Your task to perform on an android device: Open ESPN.com Image 0: 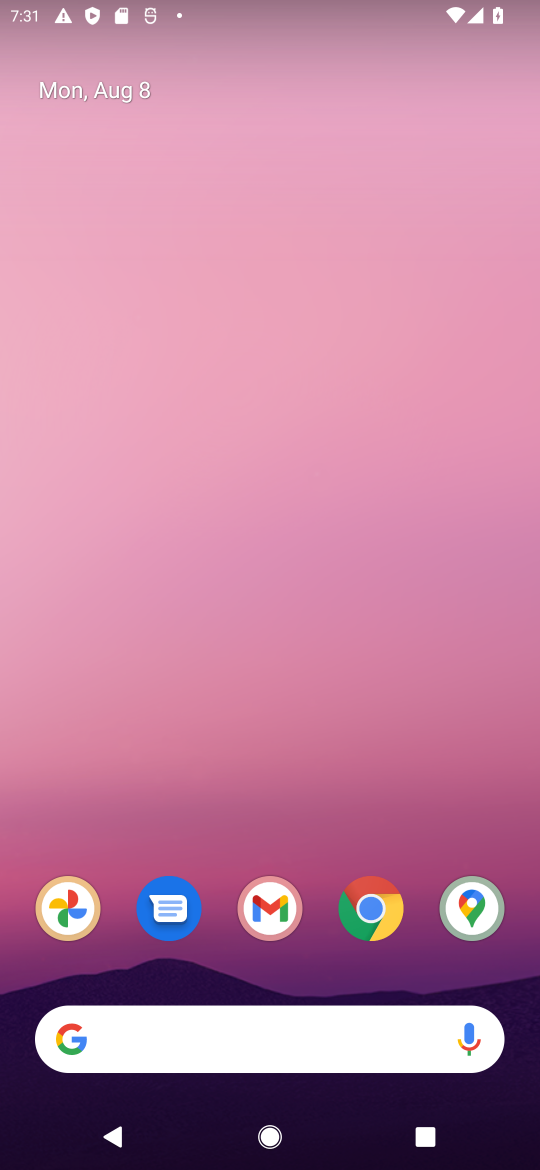
Step 0: click (374, 892)
Your task to perform on an android device: Open ESPN.com Image 1: 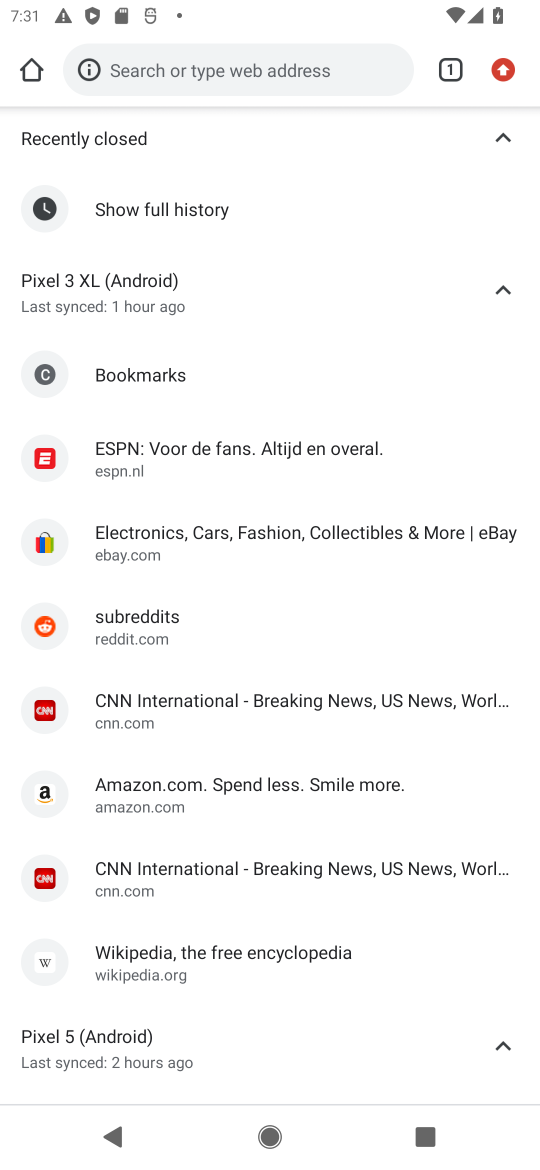
Step 1: click (31, 73)
Your task to perform on an android device: Open ESPN.com Image 2: 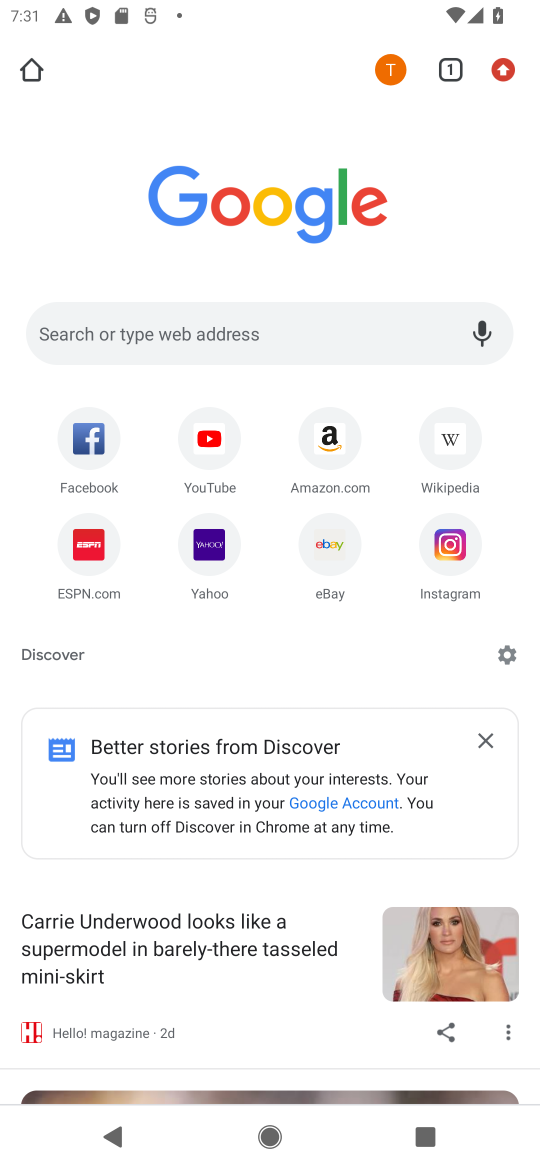
Step 2: click (75, 531)
Your task to perform on an android device: Open ESPN.com Image 3: 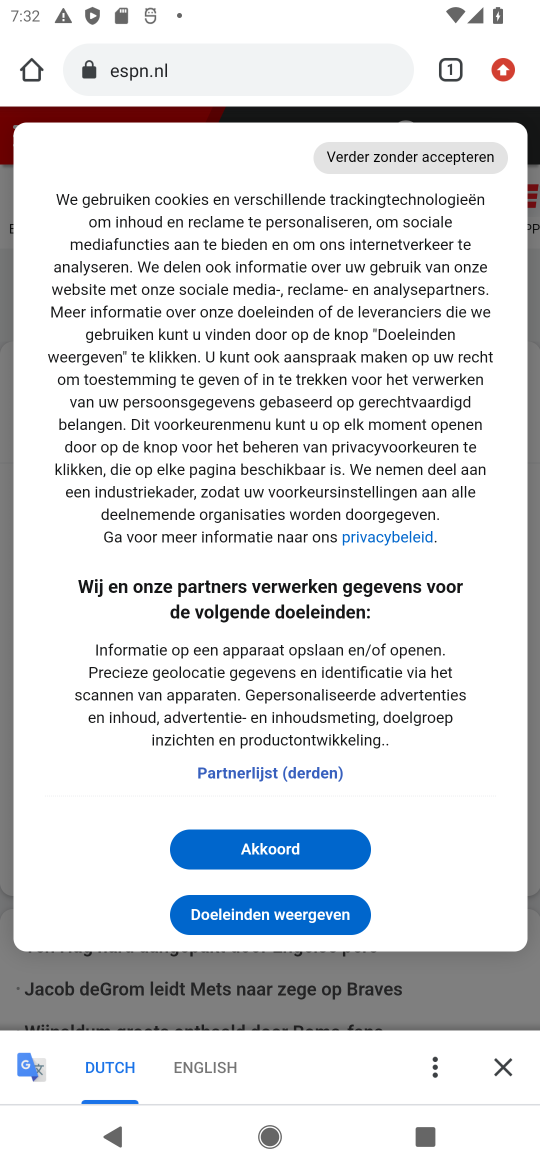
Step 3: task complete